Your task to perform on an android device: open app "Adobe Acrobat Reader" (install if not already installed), go to login, and select forgot password Image 0: 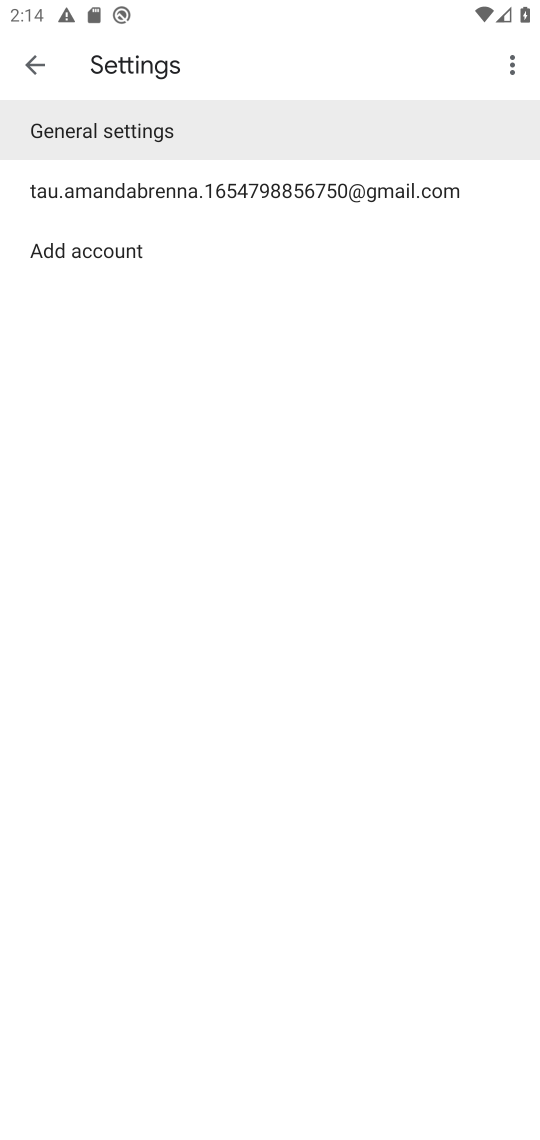
Step 0: press home button
Your task to perform on an android device: open app "Adobe Acrobat Reader" (install if not already installed), go to login, and select forgot password Image 1: 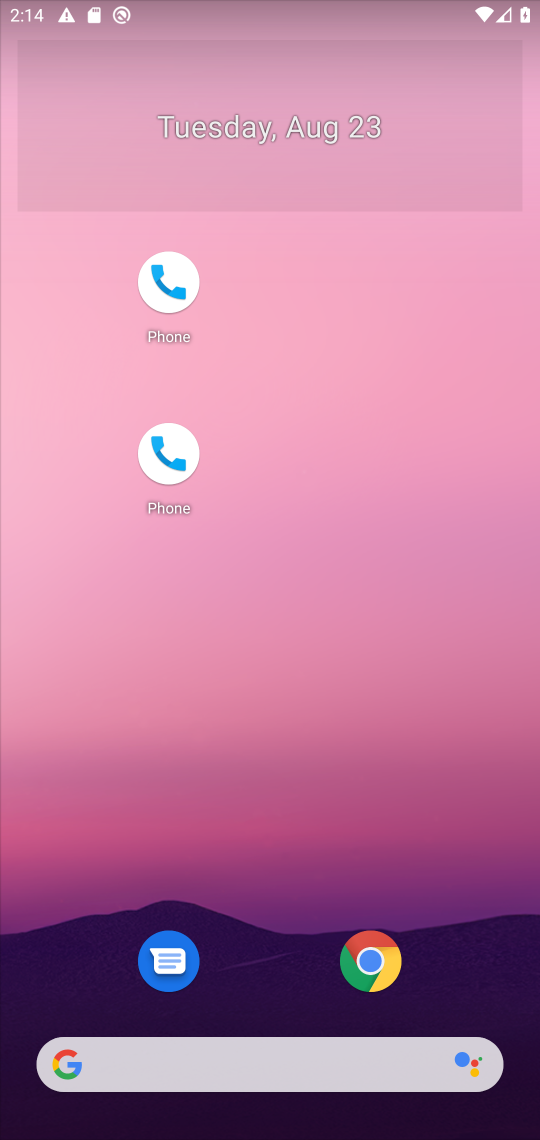
Step 1: task complete